Your task to perform on an android device: Go to Google Image 0: 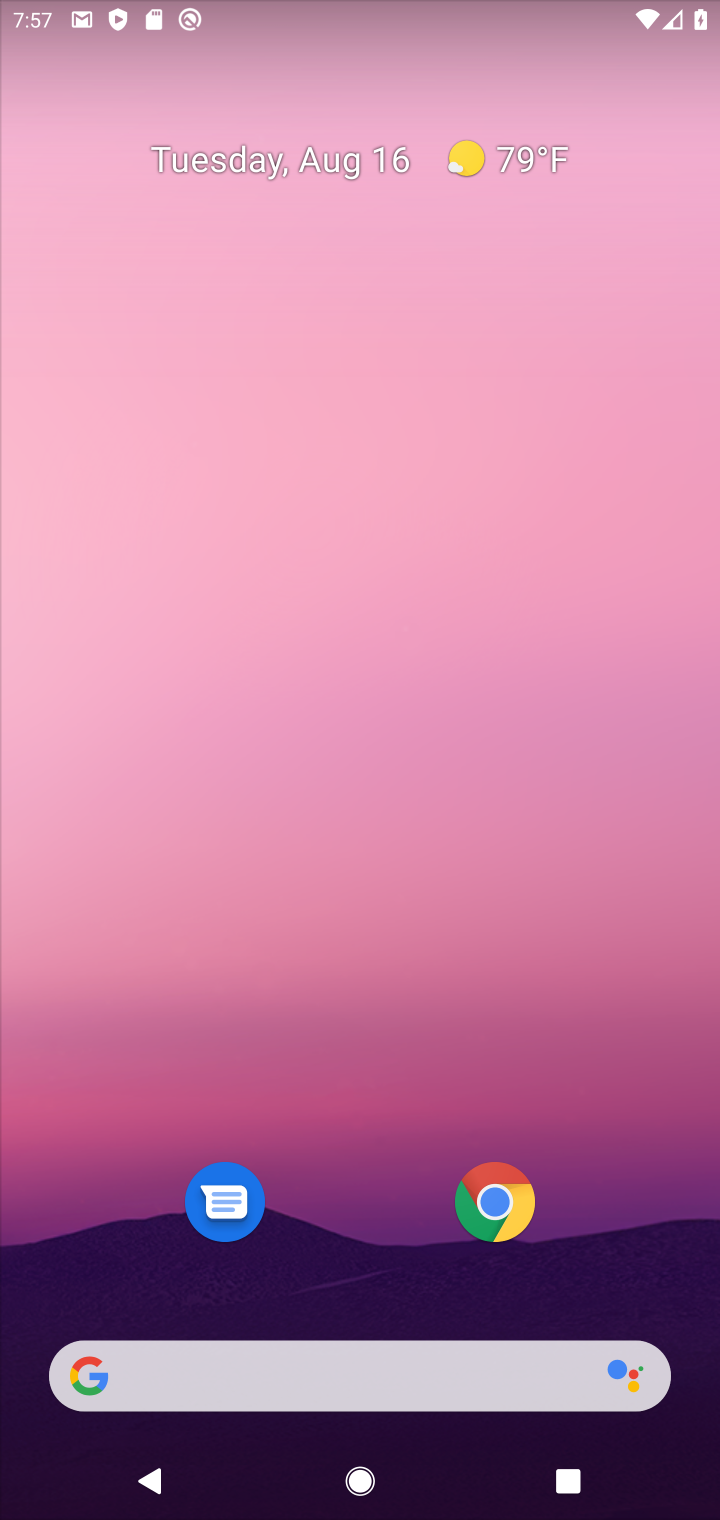
Step 0: drag from (316, 1316) to (337, 50)
Your task to perform on an android device: Go to Google Image 1: 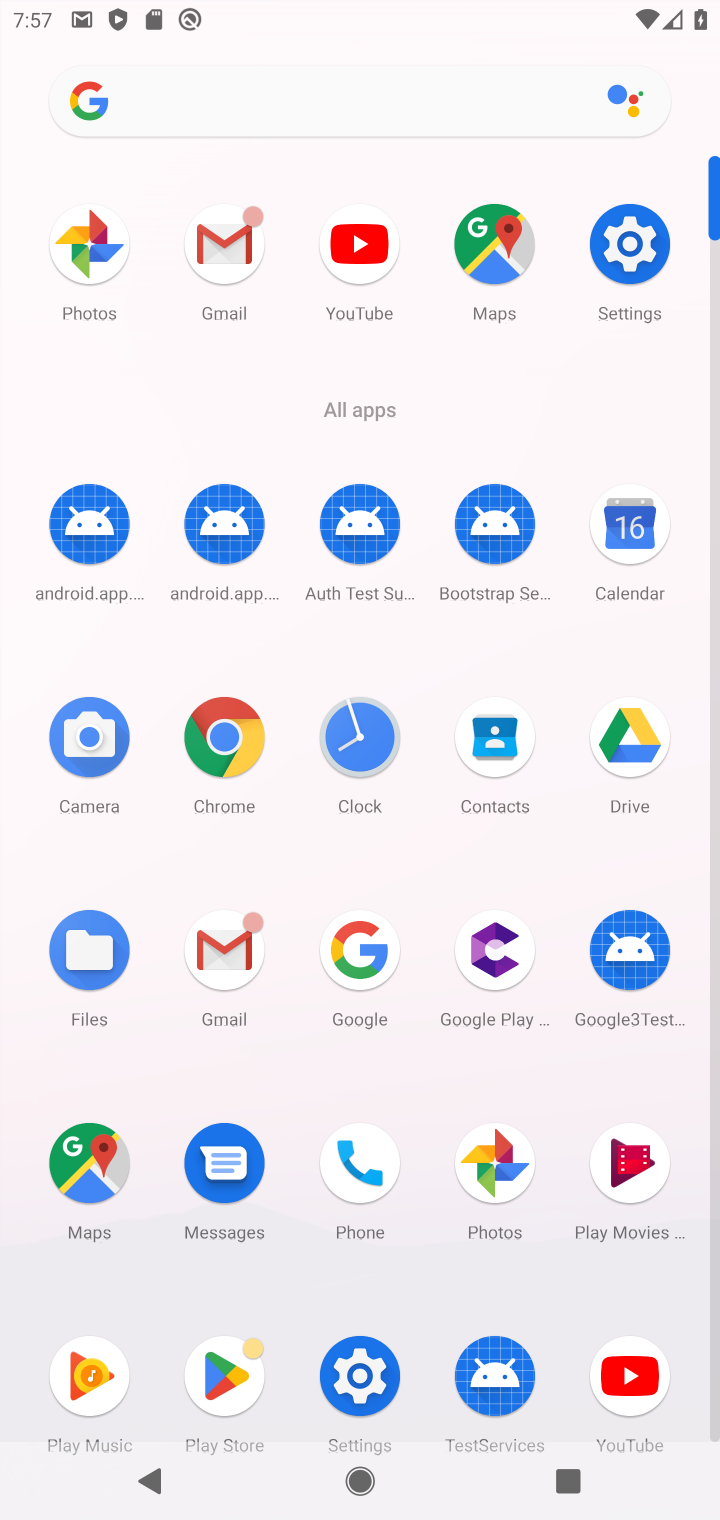
Step 1: click (242, 761)
Your task to perform on an android device: Go to Google Image 2: 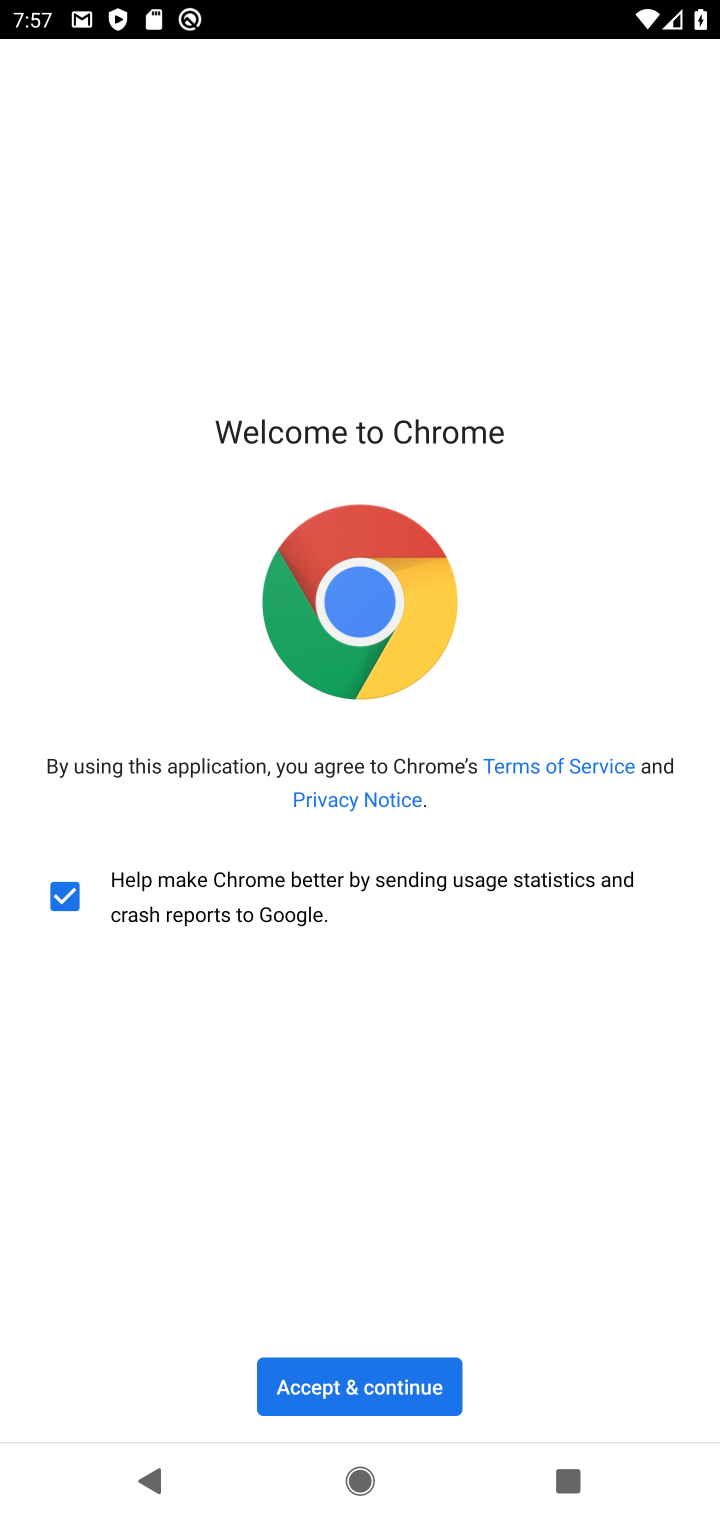
Step 2: click (422, 1357)
Your task to perform on an android device: Go to Google Image 3: 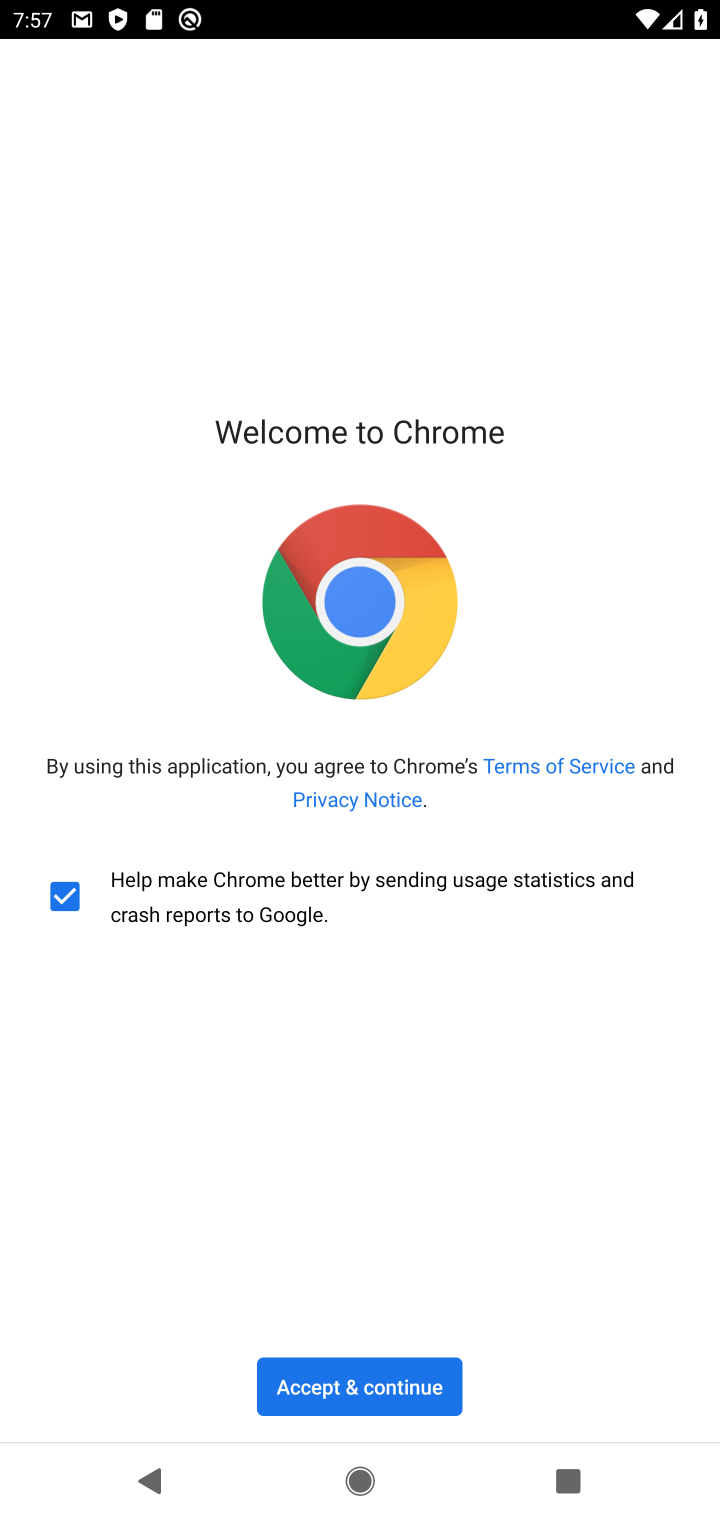
Step 3: click (417, 1362)
Your task to perform on an android device: Go to Google Image 4: 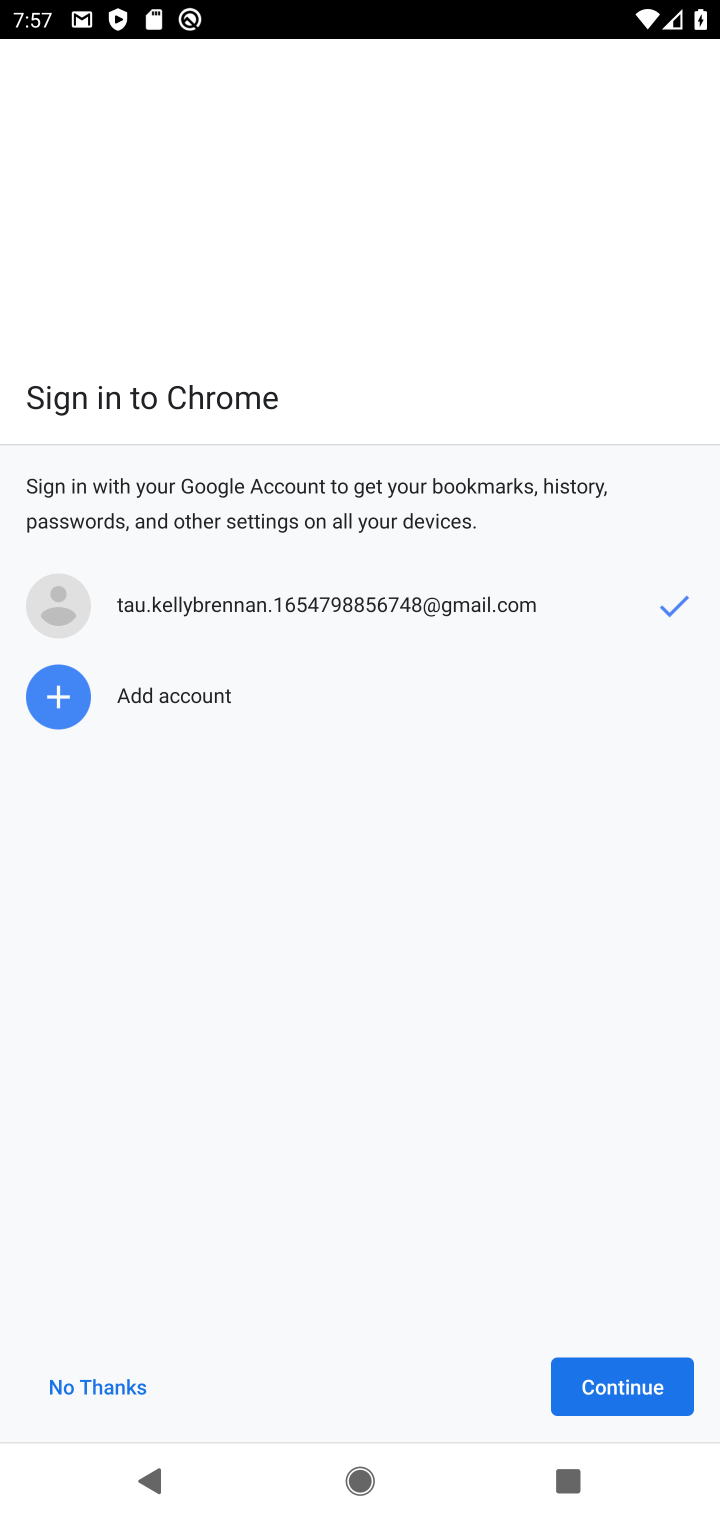
Step 4: click (604, 1408)
Your task to perform on an android device: Go to Google Image 5: 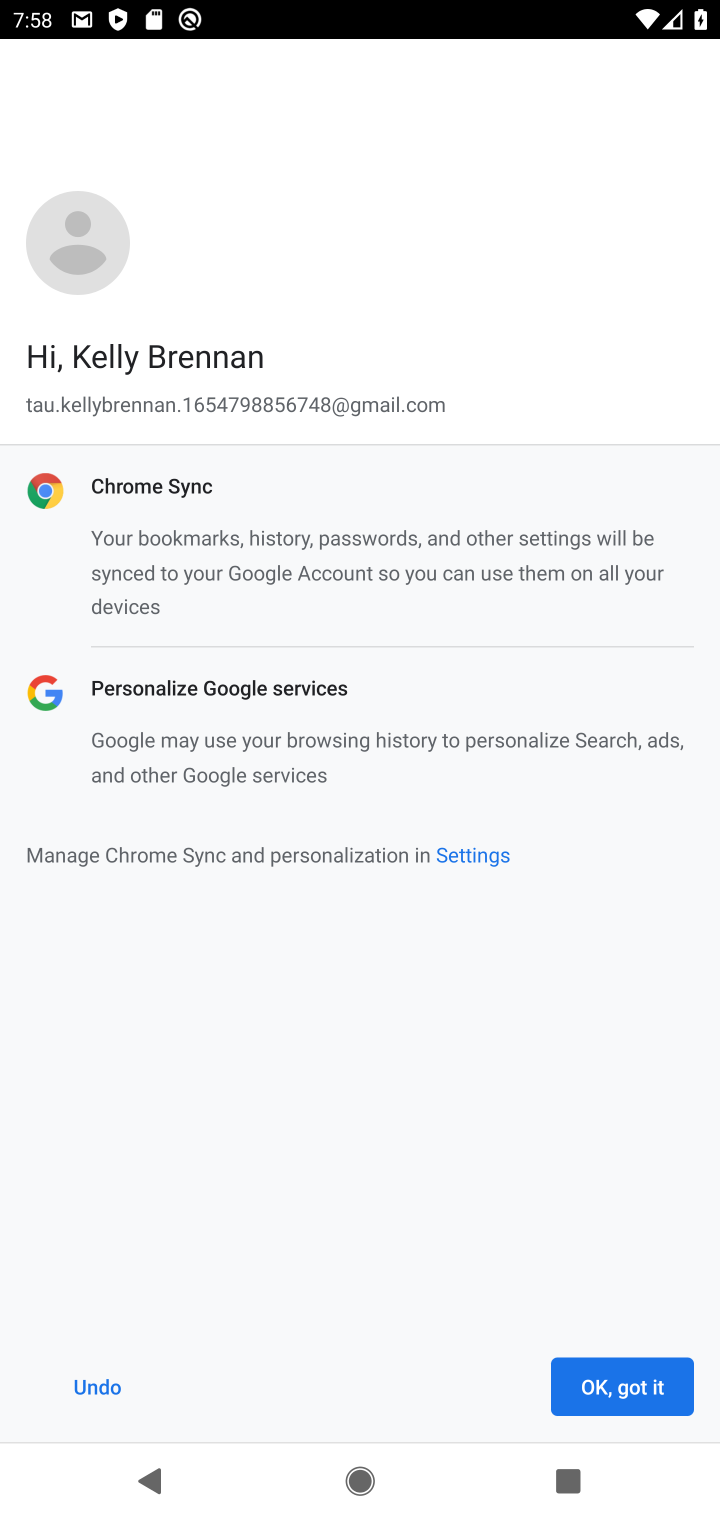
Step 5: click (604, 1408)
Your task to perform on an android device: Go to Google Image 6: 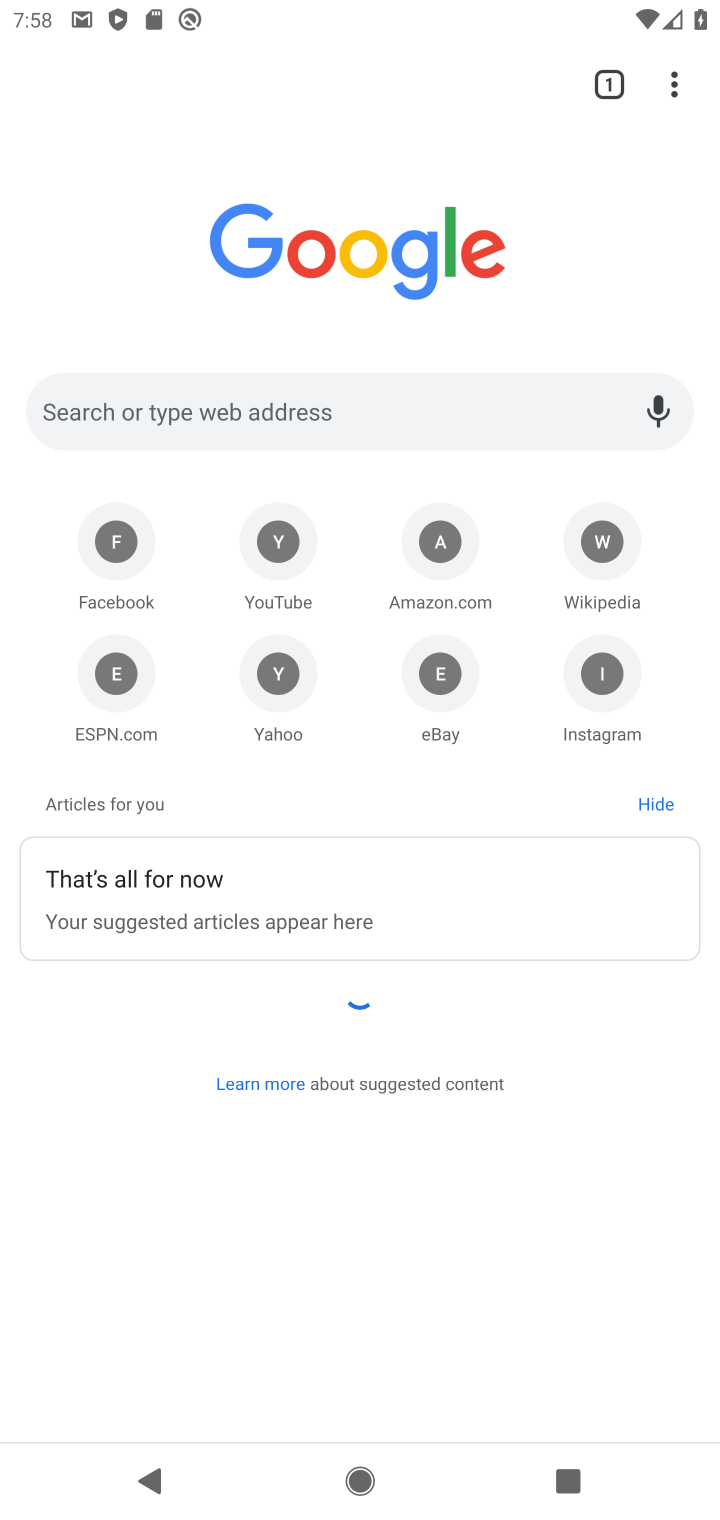
Step 6: task complete